Your task to perform on an android device: Clear the shopping cart on newegg. Image 0: 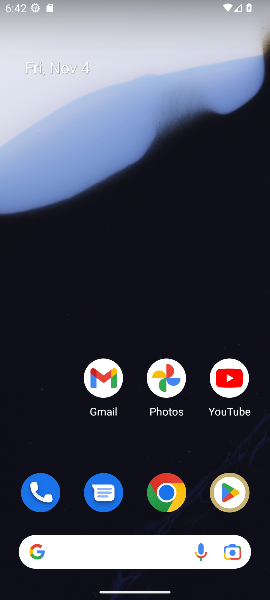
Step 0: drag from (136, 445) to (155, 61)
Your task to perform on an android device: Clear the shopping cart on newegg. Image 1: 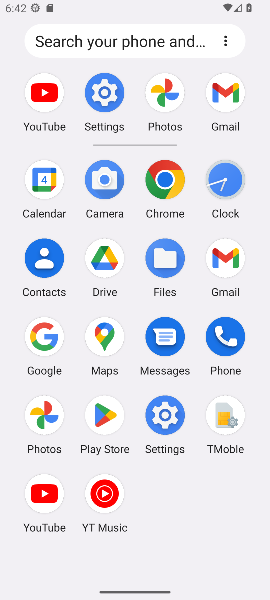
Step 1: click (162, 181)
Your task to perform on an android device: Clear the shopping cart on newegg. Image 2: 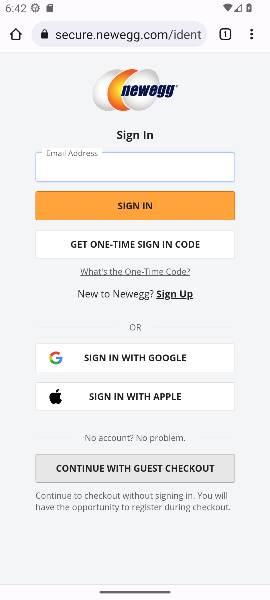
Step 2: click (146, 35)
Your task to perform on an android device: Clear the shopping cart on newegg. Image 3: 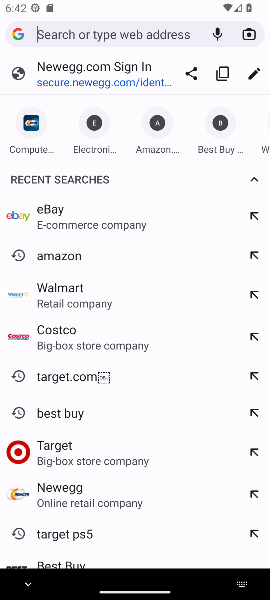
Step 3: type "newegg.com"
Your task to perform on an android device: Clear the shopping cart on newegg. Image 4: 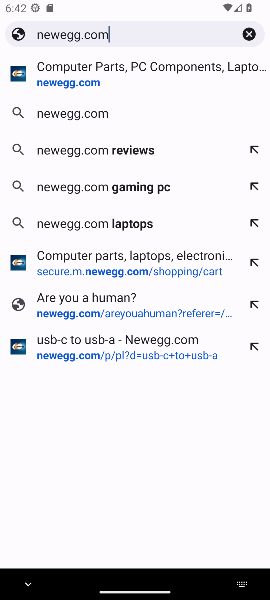
Step 4: press enter
Your task to perform on an android device: Clear the shopping cart on newegg. Image 5: 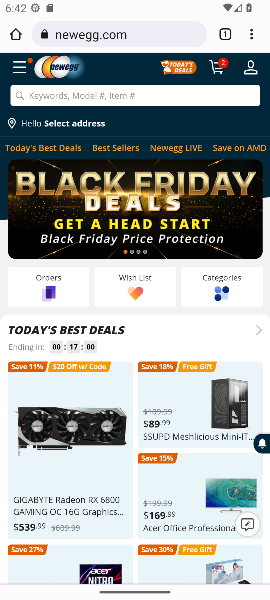
Step 5: click (214, 67)
Your task to perform on an android device: Clear the shopping cart on newegg. Image 6: 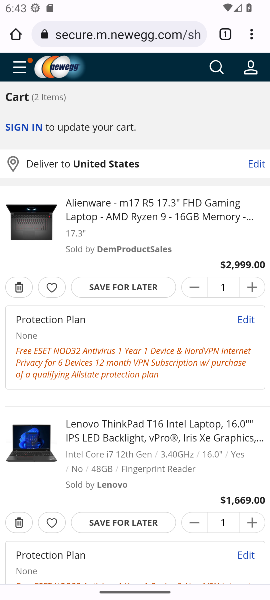
Step 6: click (20, 290)
Your task to perform on an android device: Clear the shopping cart on newegg. Image 7: 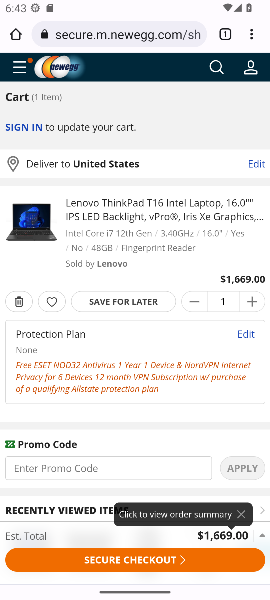
Step 7: click (24, 293)
Your task to perform on an android device: Clear the shopping cart on newegg. Image 8: 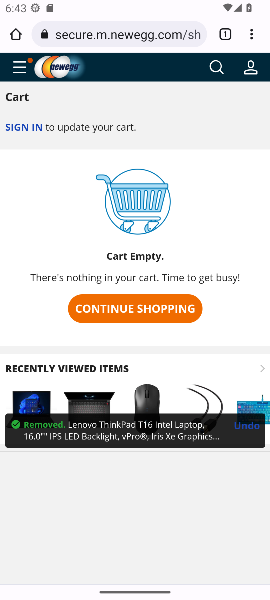
Step 8: task complete